Your task to perform on an android device: Go to Reddit.com Image 0: 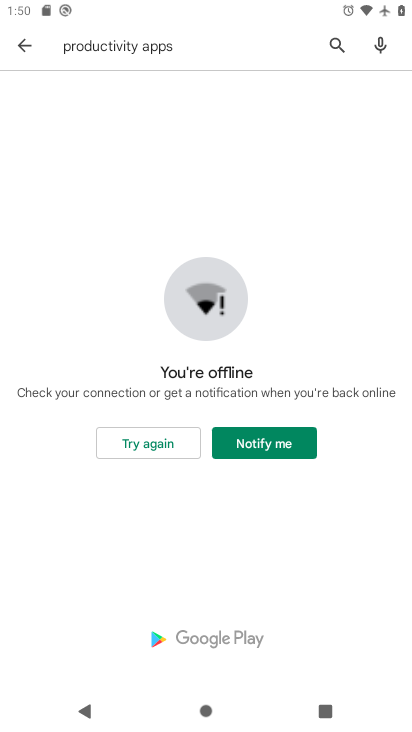
Step 0: press home button
Your task to perform on an android device: Go to Reddit.com Image 1: 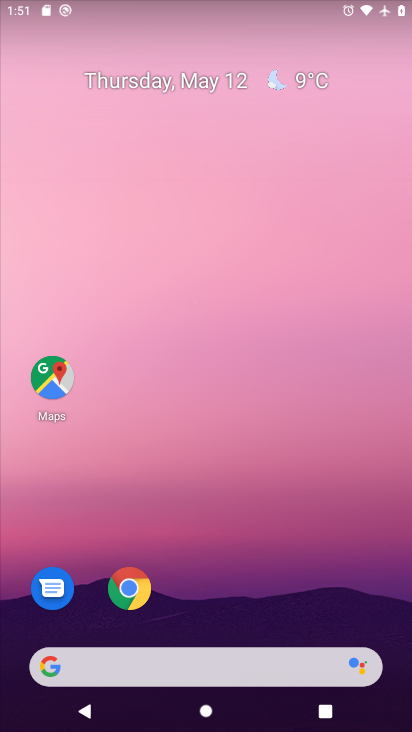
Step 1: click (121, 585)
Your task to perform on an android device: Go to Reddit.com Image 2: 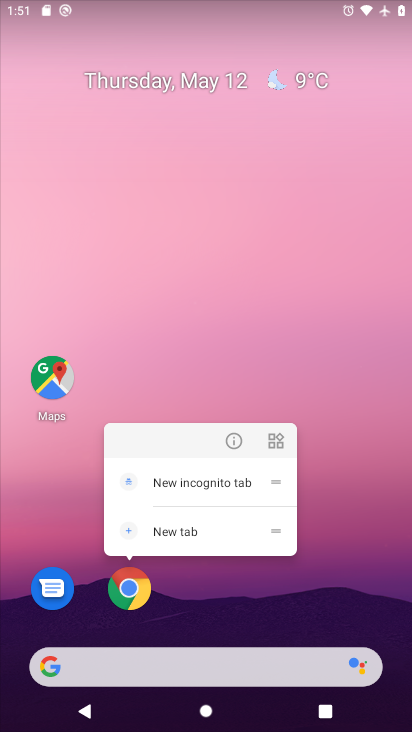
Step 2: click (133, 587)
Your task to perform on an android device: Go to Reddit.com Image 3: 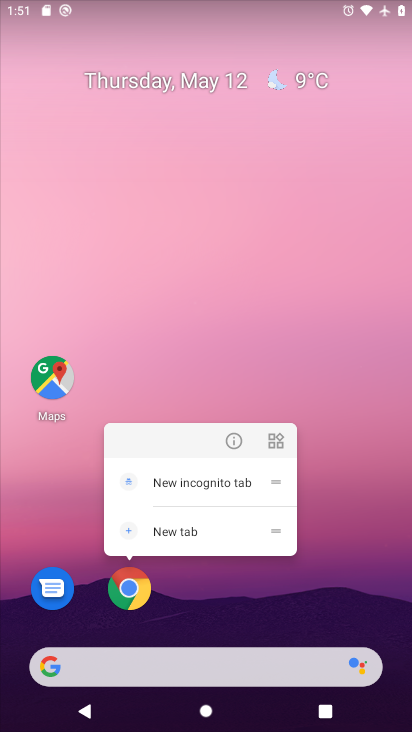
Step 3: click (133, 588)
Your task to perform on an android device: Go to Reddit.com Image 4: 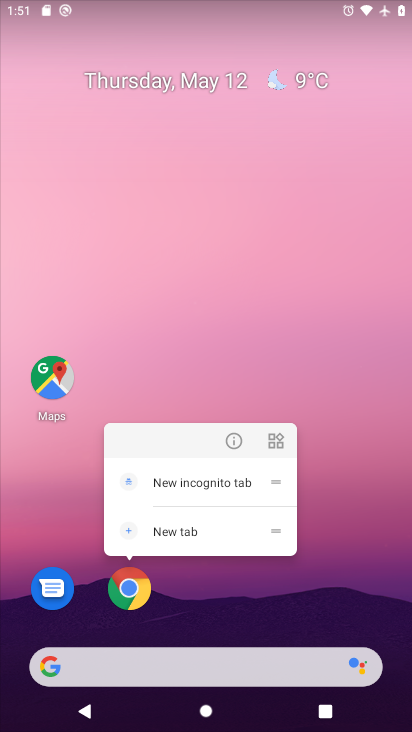
Step 4: drag from (308, 622) to (349, 6)
Your task to perform on an android device: Go to Reddit.com Image 5: 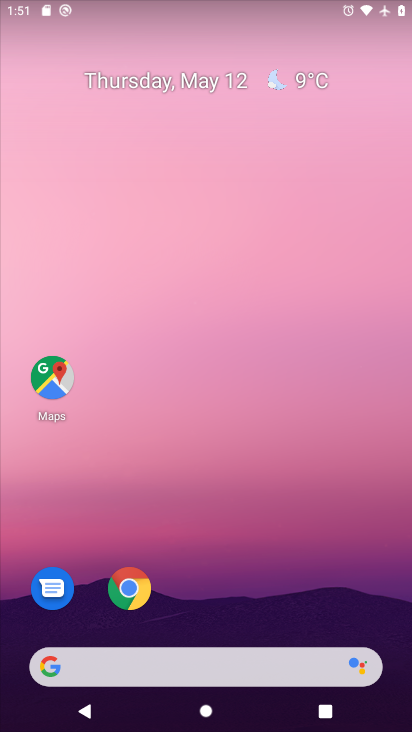
Step 5: drag from (254, 594) to (220, 0)
Your task to perform on an android device: Go to Reddit.com Image 6: 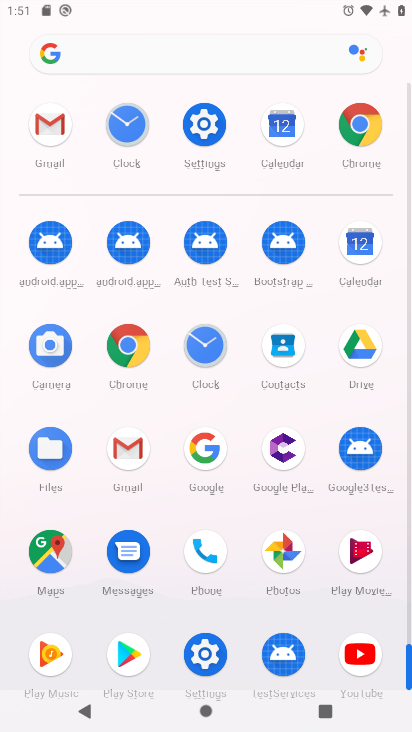
Step 6: click (359, 131)
Your task to perform on an android device: Go to Reddit.com Image 7: 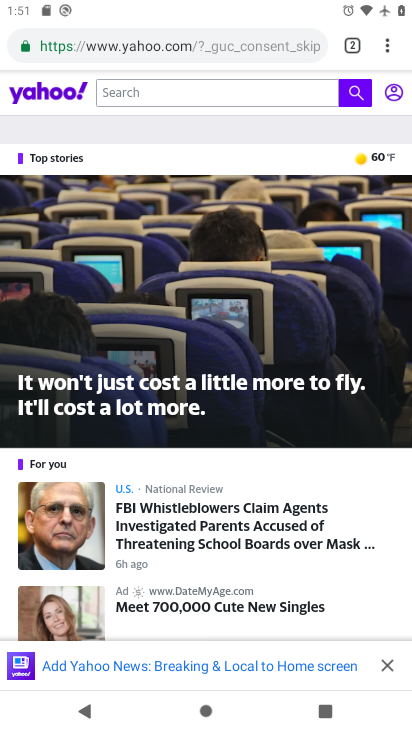
Step 7: click (264, 41)
Your task to perform on an android device: Go to Reddit.com Image 8: 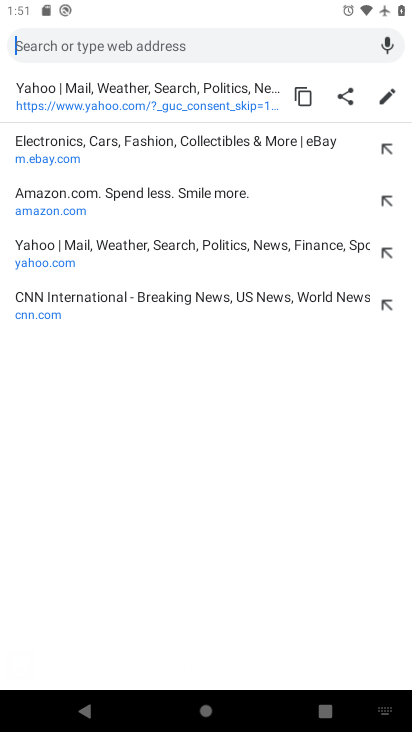
Step 8: type "reddit.com"
Your task to perform on an android device: Go to Reddit.com Image 9: 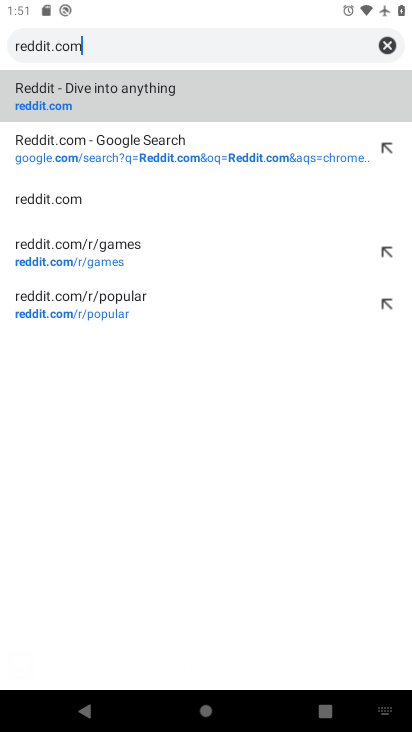
Step 9: click (24, 92)
Your task to perform on an android device: Go to Reddit.com Image 10: 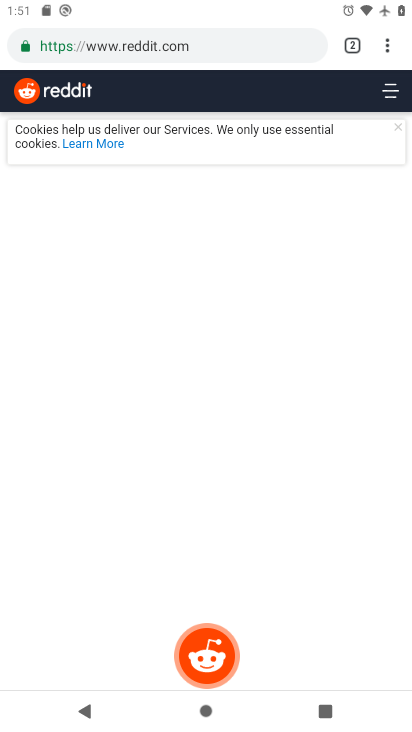
Step 10: task complete